Your task to perform on an android device: Where can I buy a nice beach bag? Image 0: 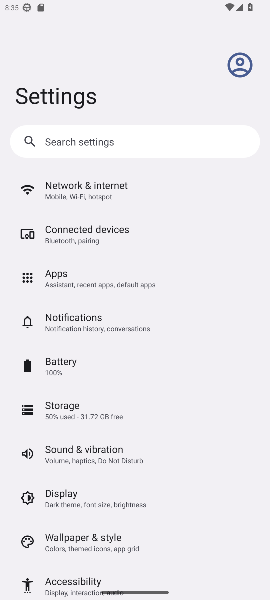
Step 0: press home button
Your task to perform on an android device: Where can I buy a nice beach bag? Image 1: 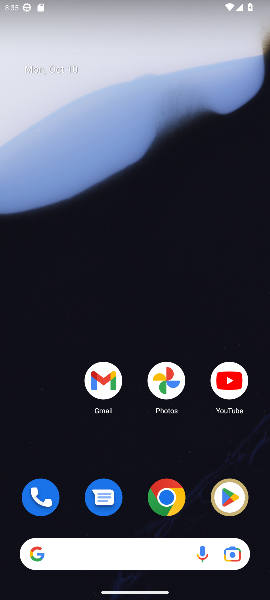
Step 1: drag from (116, 467) to (186, 174)
Your task to perform on an android device: Where can I buy a nice beach bag? Image 2: 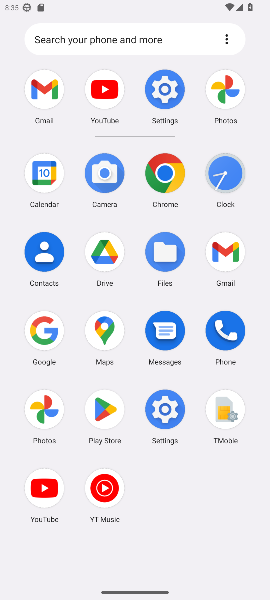
Step 2: click (44, 331)
Your task to perform on an android device: Where can I buy a nice beach bag? Image 3: 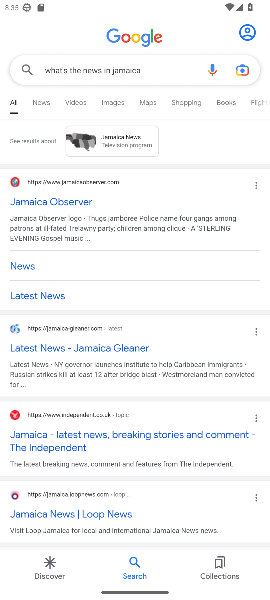
Step 3: click (135, 65)
Your task to perform on an android device: Where can I buy a nice beach bag? Image 4: 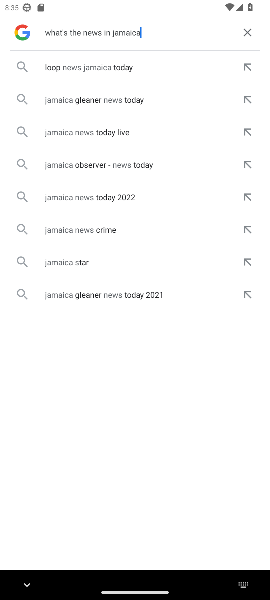
Step 4: click (242, 31)
Your task to perform on an android device: Where can I buy a nice beach bag? Image 5: 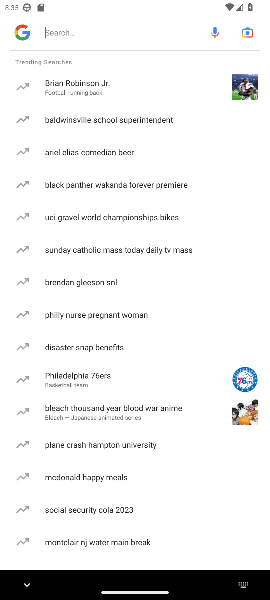
Step 5: click (81, 30)
Your task to perform on an android device: Where can I buy a nice beach bag? Image 6: 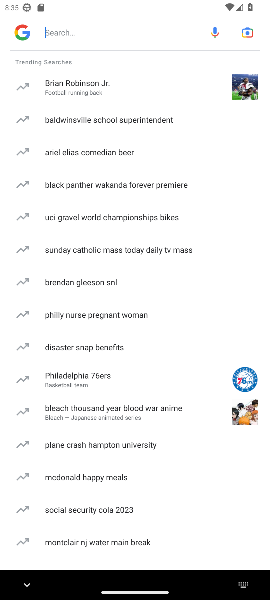
Step 6: type "Where can I buy a nice beach bag "
Your task to perform on an android device: Where can I buy a nice beach bag? Image 7: 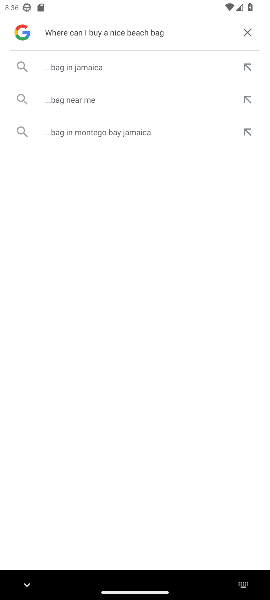
Step 7: click (98, 67)
Your task to perform on an android device: Where can I buy a nice beach bag? Image 8: 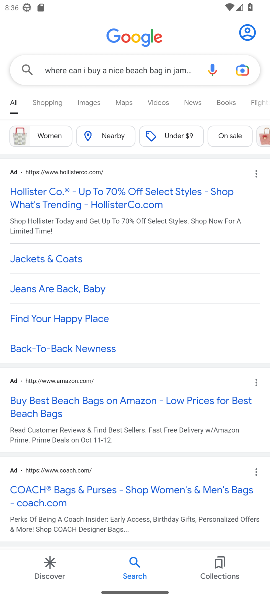
Step 8: click (106, 200)
Your task to perform on an android device: Where can I buy a nice beach bag? Image 9: 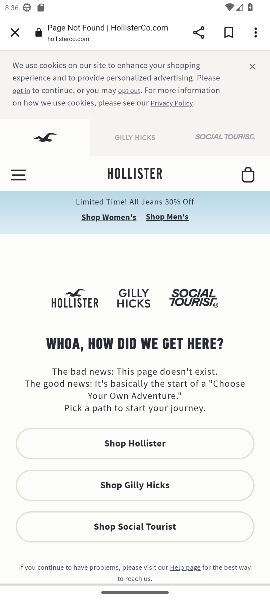
Step 9: drag from (110, 517) to (178, 238)
Your task to perform on an android device: Where can I buy a nice beach bag? Image 10: 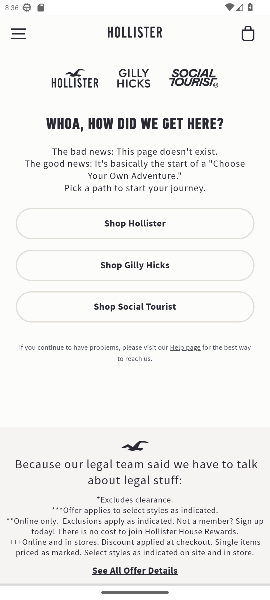
Step 10: click (113, 481)
Your task to perform on an android device: Where can I buy a nice beach bag? Image 11: 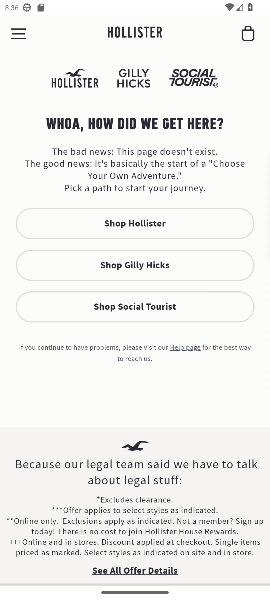
Step 11: drag from (125, 268) to (130, 193)
Your task to perform on an android device: Where can I buy a nice beach bag? Image 12: 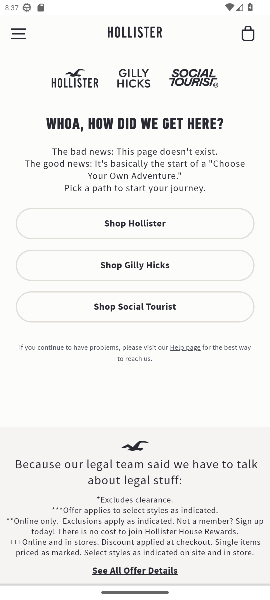
Step 12: press back button
Your task to perform on an android device: Where can I buy a nice beach bag? Image 13: 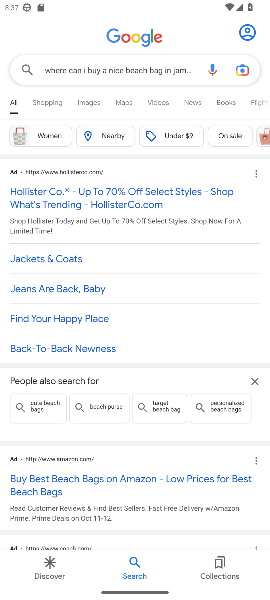
Step 13: click (60, 474)
Your task to perform on an android device: Where can I buy a nice beach bag? Image 14: 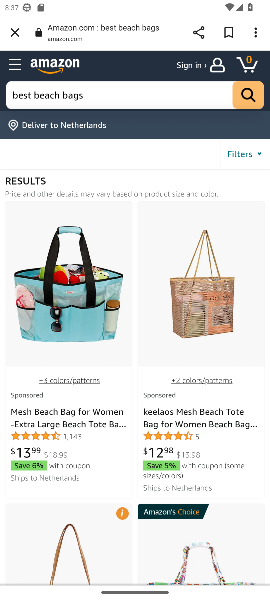
Step 14: task complete